Your task to perform on an android device: turn on location history Image 0: 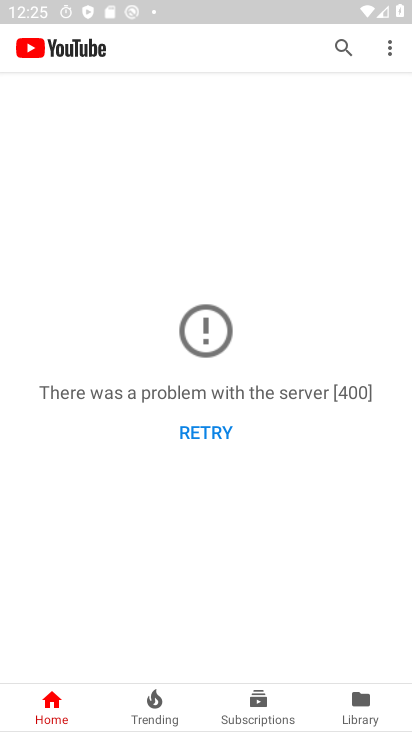
Step 0: press home button
Your task to perform on an android device: turn on location history Image 1: 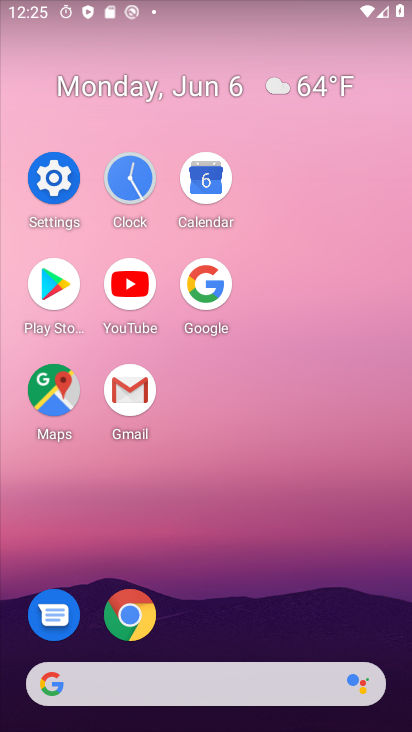
Step 1: click (59, 198)
Your task to perform on an android device: turn on location history Image 2: 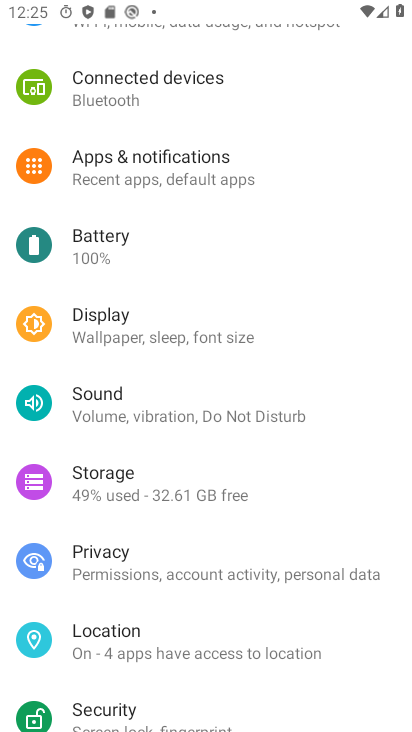
Step 2: click (191, 617)
Your task to perform on an android device: turn on location history Image 3: 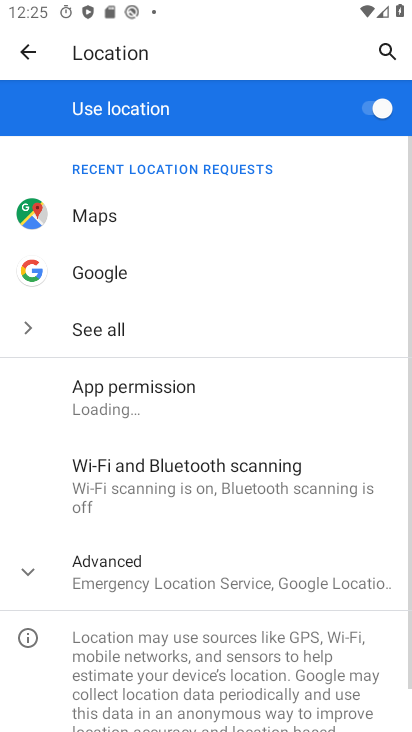
Step 3: click (152, 566)
Your task to perform on an android device: turn on location history Image 4: 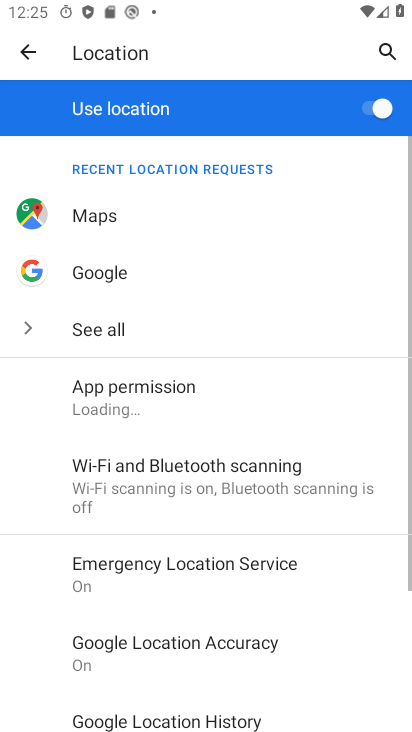
Step 4: drag from (123, 494) to (128, 174)
Your task to perform on an android device: turn on location history Image 5: 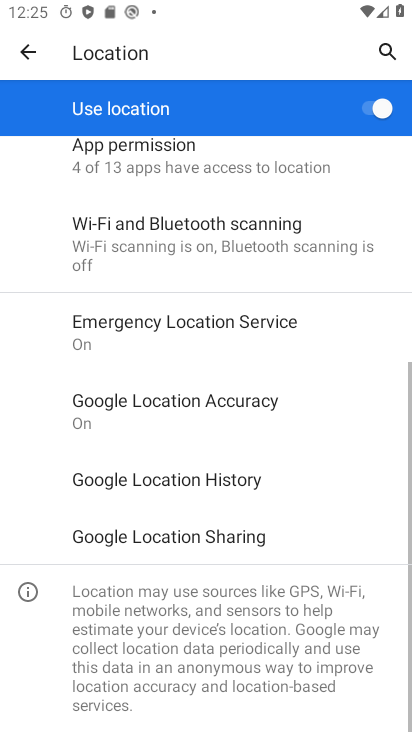
Step 5: click (232, 469)
Your task to perform on an android device: turn on location history Image 6: 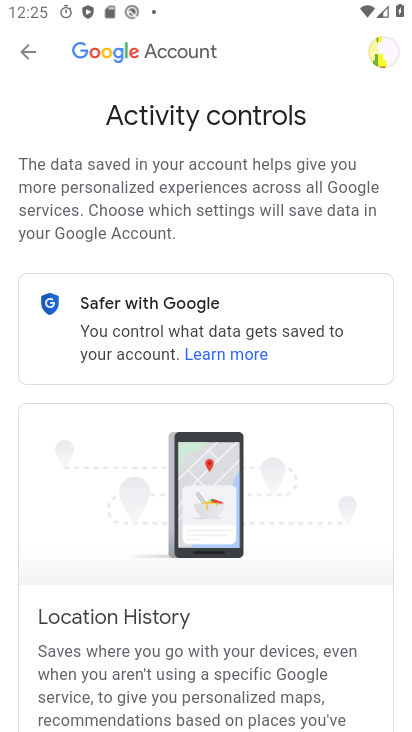
Step 6: task complete